Your task to perform on an android device: Open Youtube and go to "Your channel" Image 0: 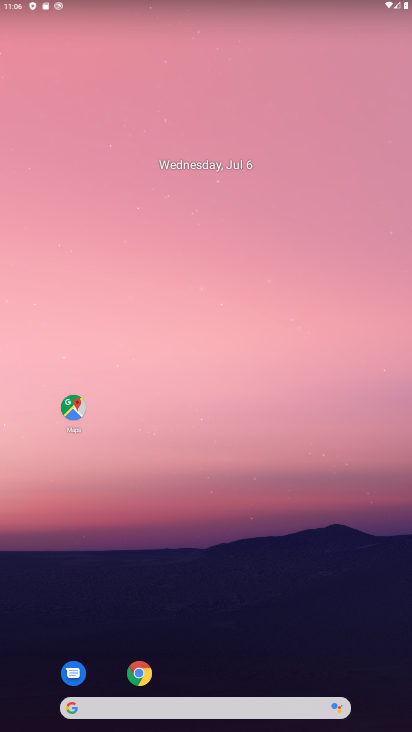
Step 0: drag from (204, 575) to (266, 174)
Your task to perform on an android device: Open Youtube and go to "Your channel" Image 1: 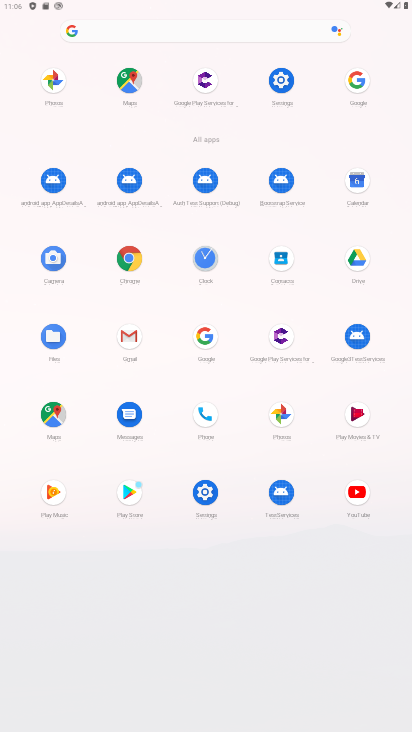
Step 1: click (358, 499)
Your task to perform on an android device: Open Youtube and go to "Your channel" Image 2: 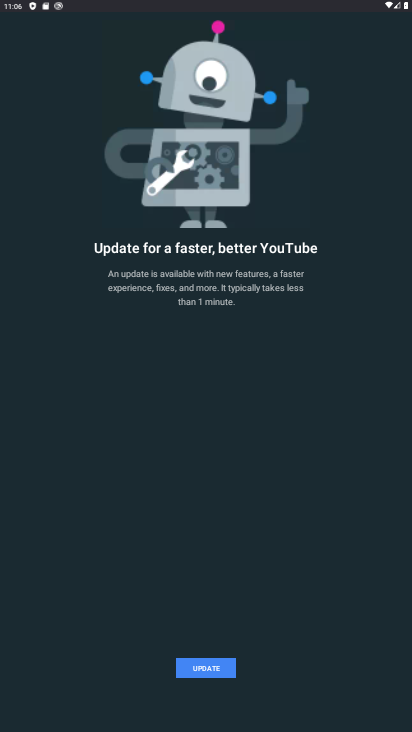
Step 2: click (225, 673)
Your task to perform on an android device: Open Youtube and go to "Your channel" Image 3: 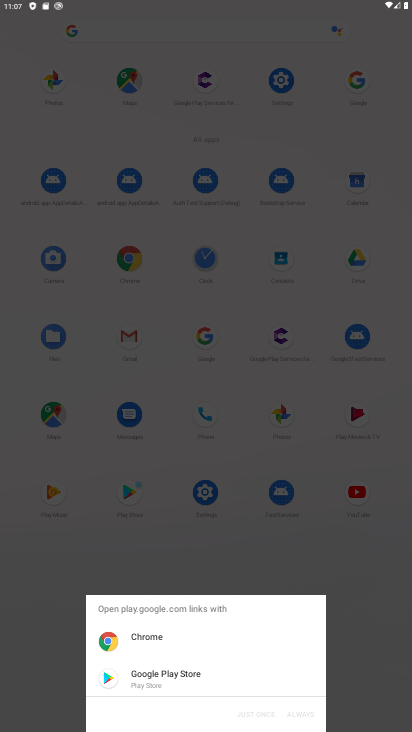
Step 3: click (170, 671)
Your task to perform on an android device: Open Youtube and go to "Your channel" Image 4: 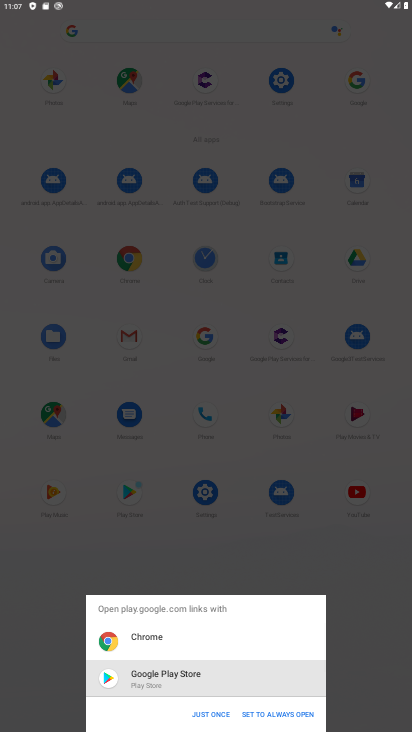
Step 4: click (212, 715)
Your task to perform on an android device: Open Youtube and go to "Your channel" Image 5: 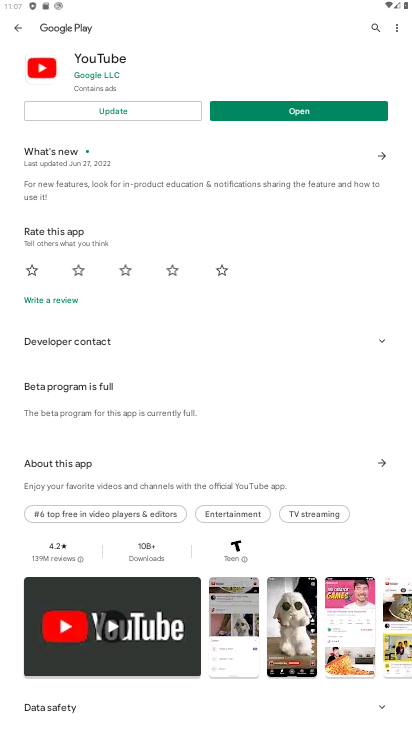
Step 5: click (141, 102)
Your task to perform on an android device: Open Youtube and go to "Your channel" Image 6: 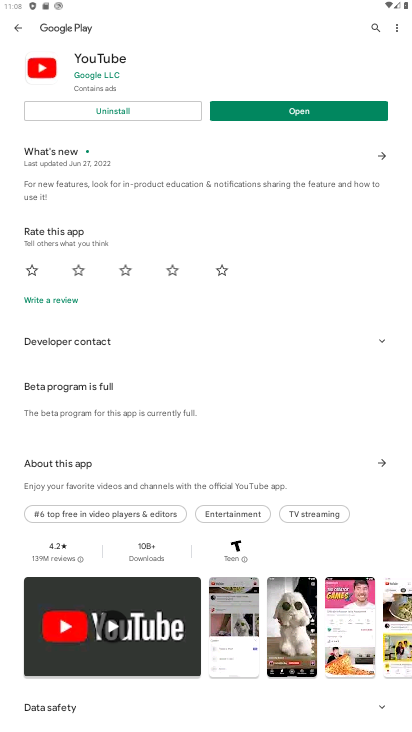
Step 6: task complete